Your task to perform on an android device: Open location settings Image 0: 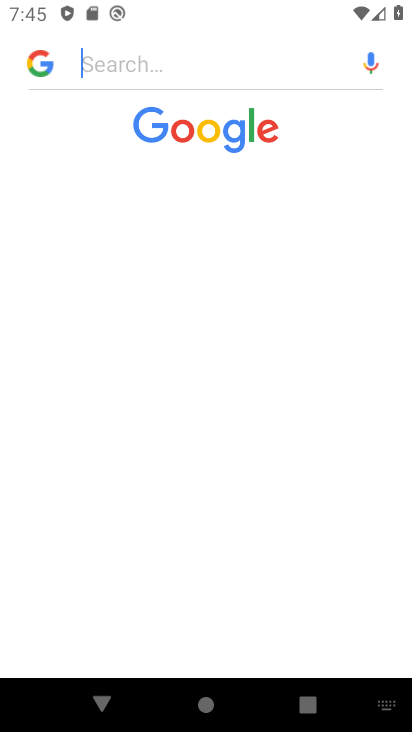
Step 0: press home button
Your task to perform on an android device: Open location settings Image 1: 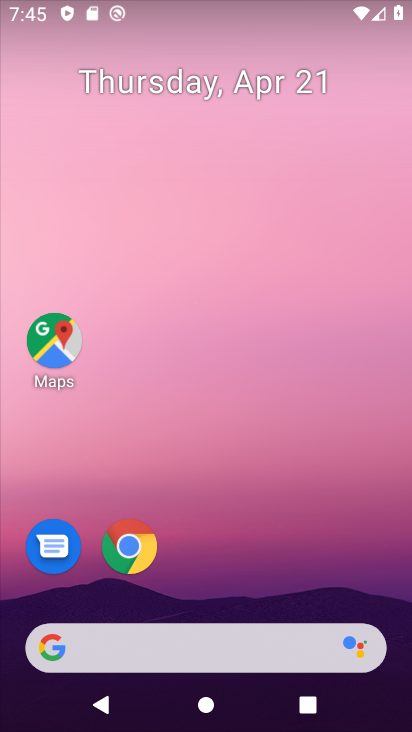
Step 1: click (243, 2)
Your task to perform on an android device: Open location settings Image 2: 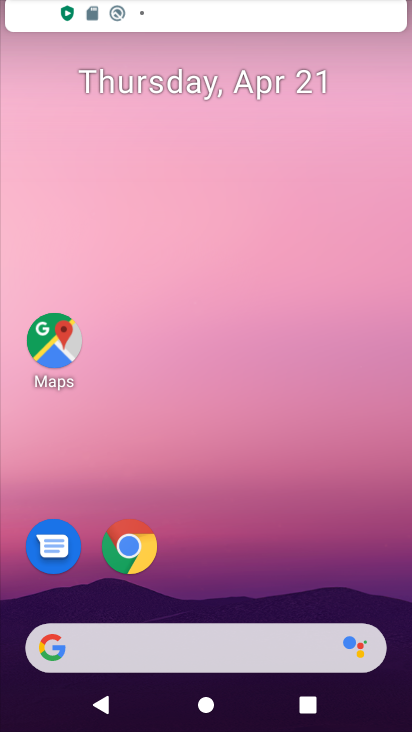
Step 2: drag from (302, 523) to (268, 36)
Your task to perform on an android device: Open location settings Image 3: 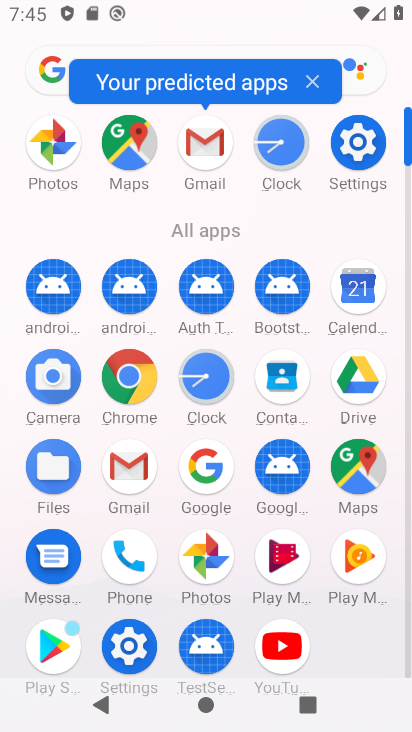
Step 3: click (364, 156)
Your task to perform on an android device: Open location settings Image 4: 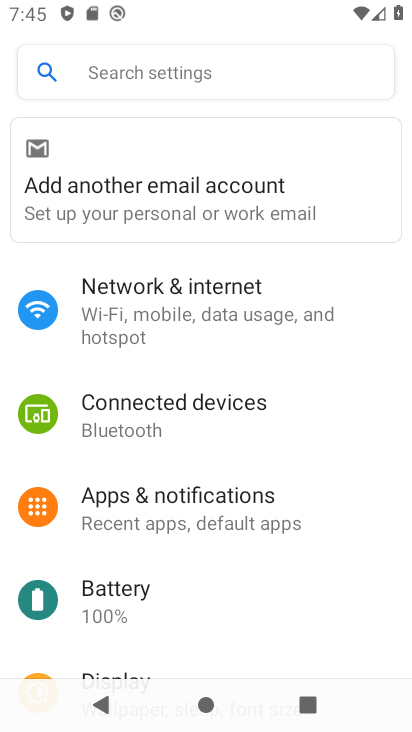
Step 4: drag from (239, 455) to (187, 192)
Your task to perform on an android device: Open location settings Image 5: 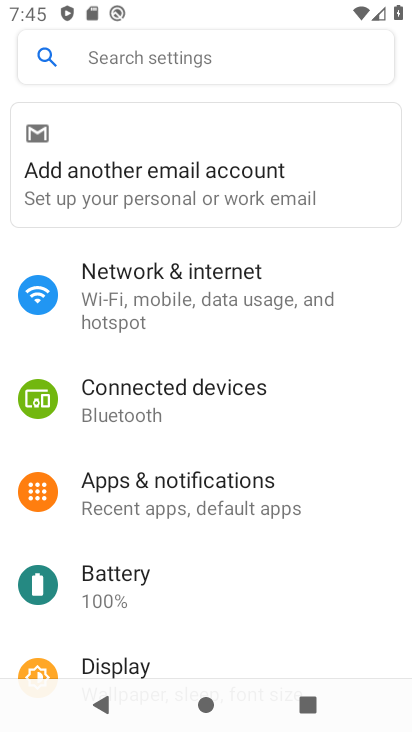
Step 5: drag from (263, 527) to (226, 183)
Your task to perform on an android device: Open location settings Image 6: 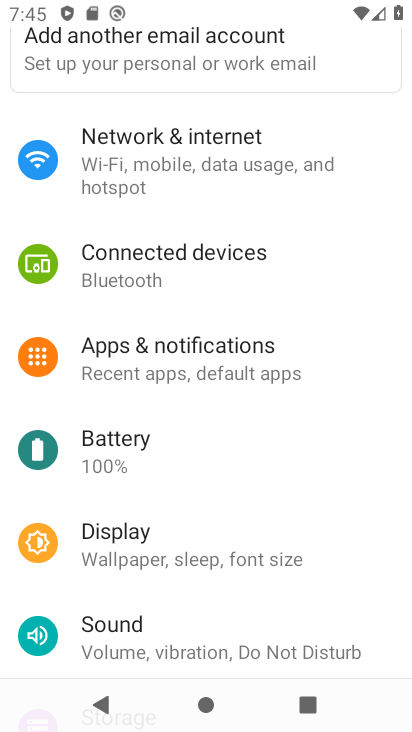
Step 6: drag from (244, 647) to (227, 218)
Your task to perform on an android device: Open location settings Image 7: 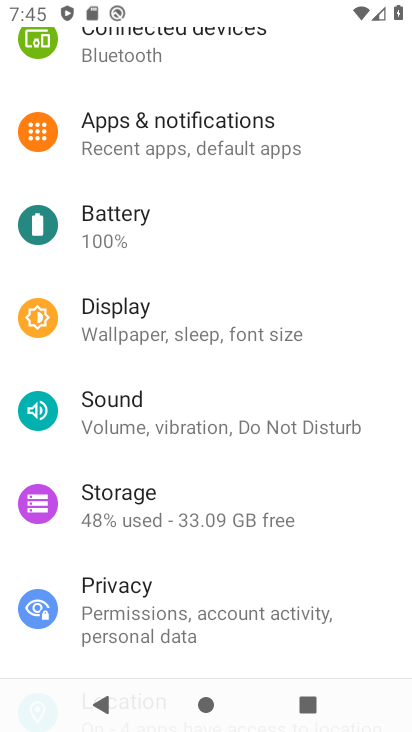
Step 7: drag from (221, 420) to (182, 161)
Your task to perform on an android device: Open location settings Image 8: 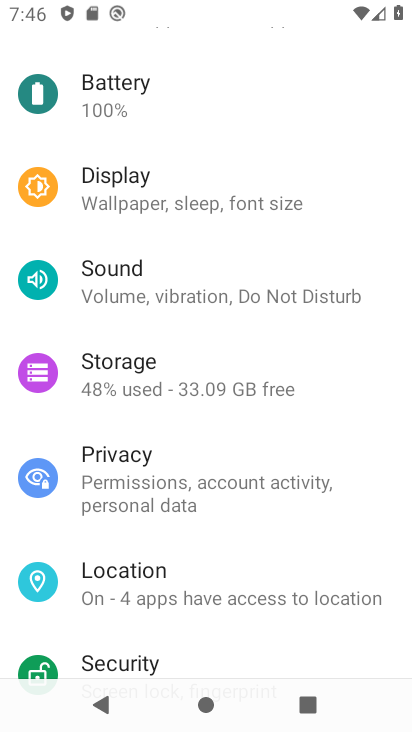
Step 8: click (160, 582)
Your task to perform on an android device: Open location settings Image 9: 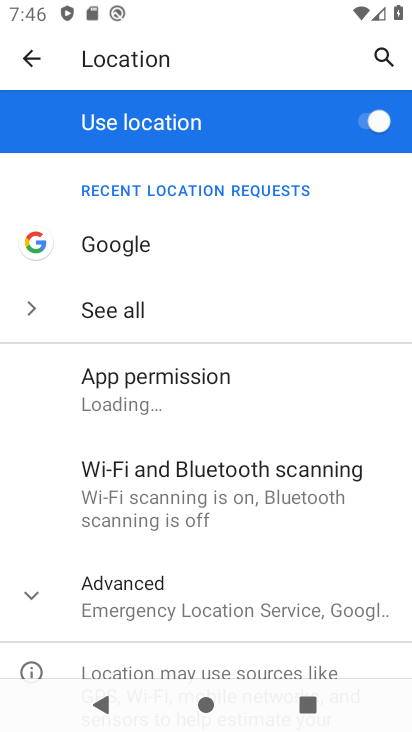
Step 9: task complete